Your task to perform on an android device: Show me popular videos on Youtube Image 0: 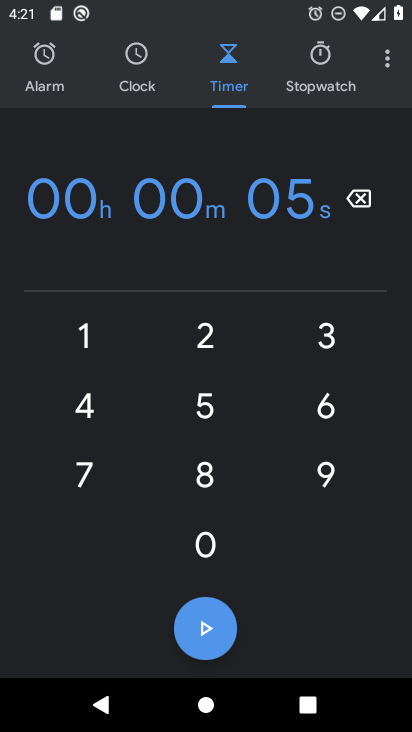
Step 0: press home button
Your task to perform on an android device: Show me popular videos on Youtube Image 1: 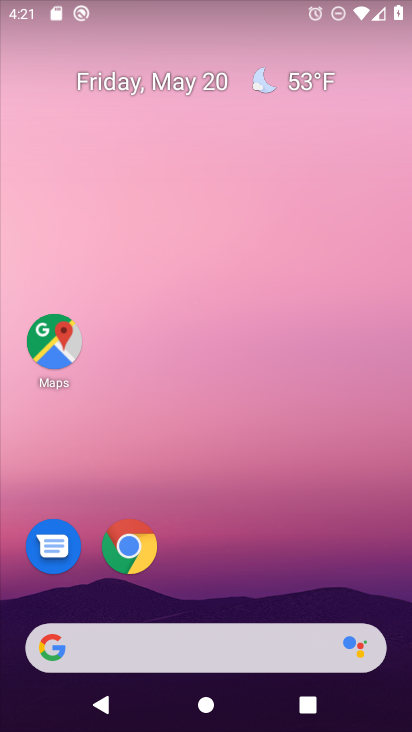
Step 1: drag from (265, 502) to (293, 178)
Your task to perform on an android device: Show me popular videos on Youtube Image 2: 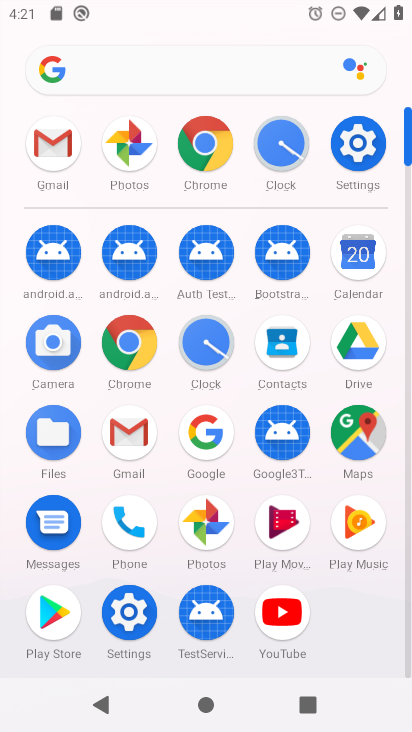
Step 2: click (285, 611)
Your task to perform on an android device: Show me popular videos on Youtube Image 3: 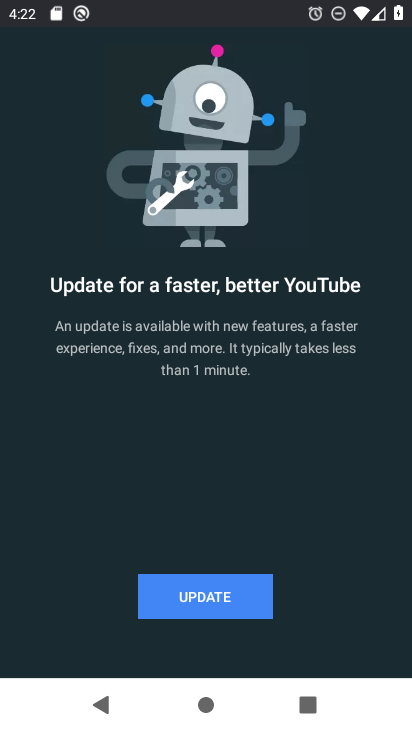
Step 3: click (194, 591)
Your task to perform on an android device: Show me popular videos on Youtube Image 4: 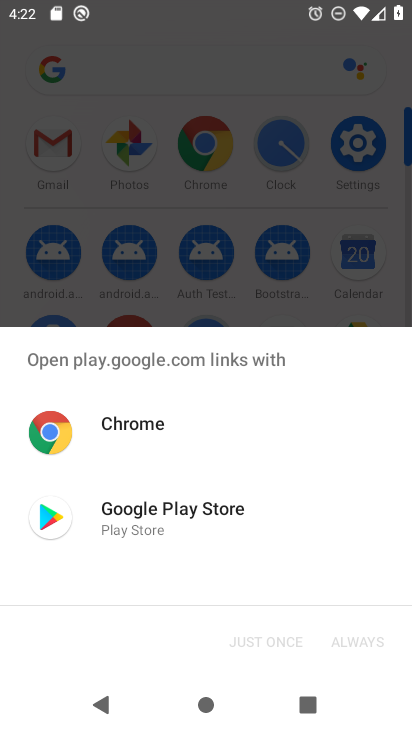
Step 4: click (132, 490)
Your task to perform on an android device: Show me popular videos on Youtube Image 5: 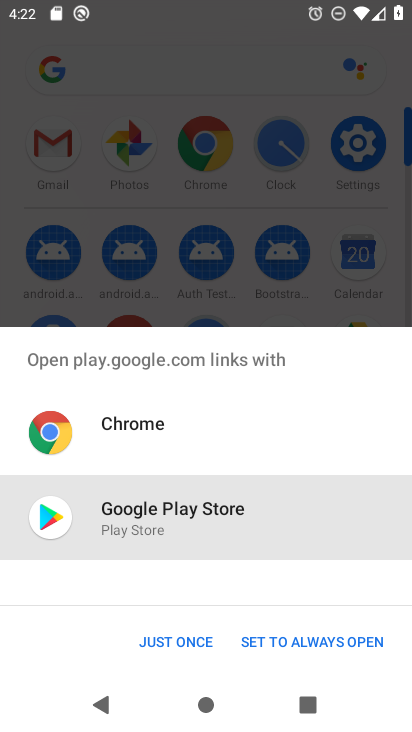
Step 5: click (169, 642)
Your task to perform on an android device: Show me popular videos on Youtube Image 6: 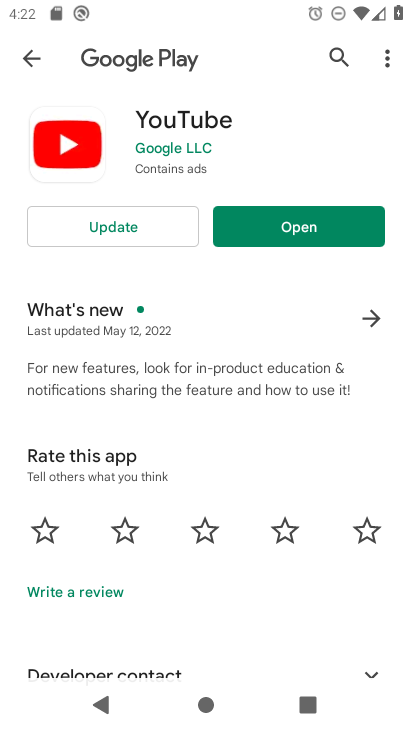
Step 6: click (144, 238)
Your task to perform on an android device: Show me popular videos on Youtube Image 7: 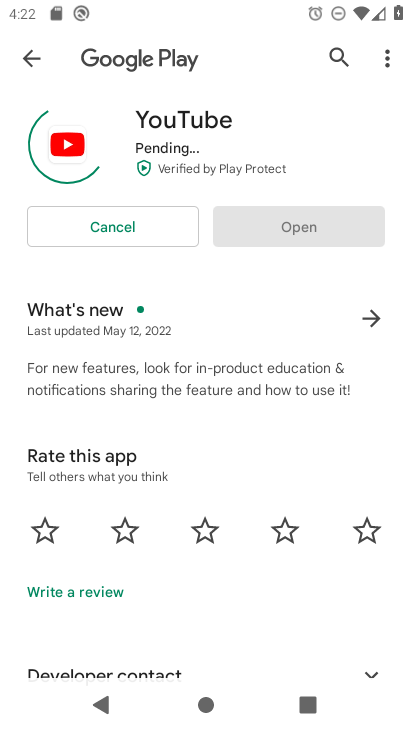
Step 7: task complete